Your task to perform on an android device: Open calendar and show me the second week of next month Image 0: 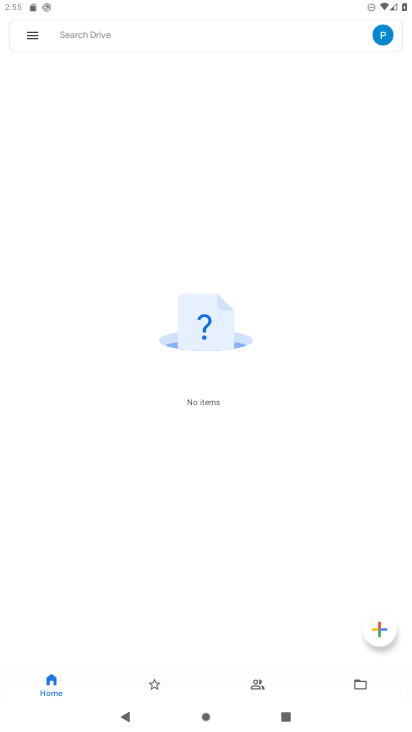
Step 0: press home button
Your task to perform on an android device: Open calendar and show me the second week of next month Image 1: 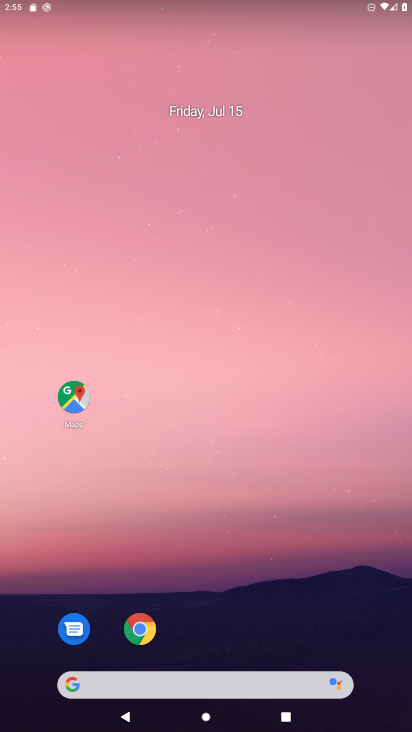
Step 1: drag from (256, 654) to (238, 24)
Your task to perform on an android device: Open calendar and show me the second week of next month Image 2: 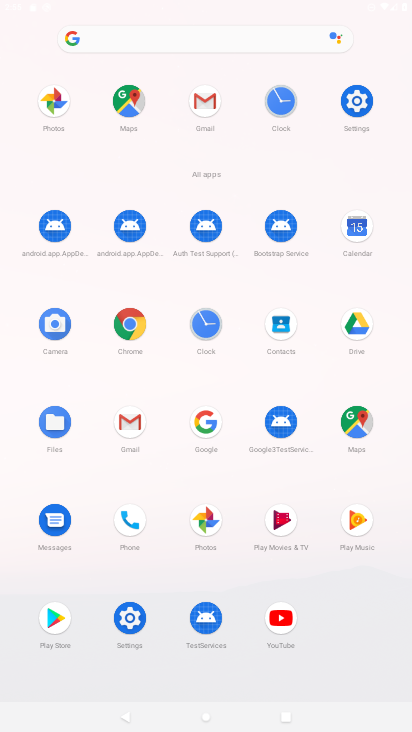
Step 2: click (360, 233)
Your task to perform on an android device: Open calendar and show me the second week of next month Image 3: 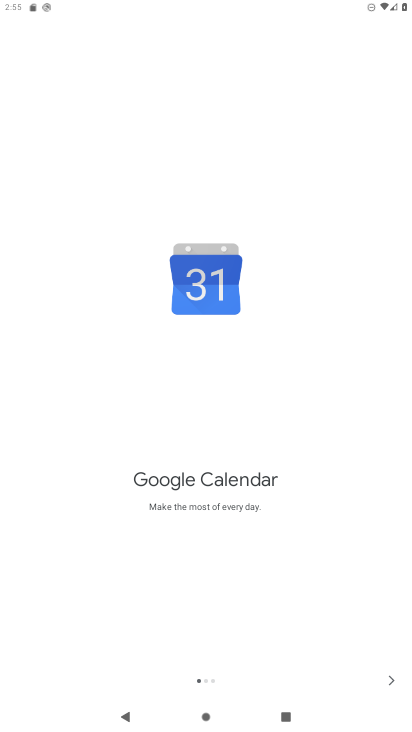
Step 3: click (398, 678)
Your task to perform on an android device: Open calendar and show me the second week of next month Image 4: 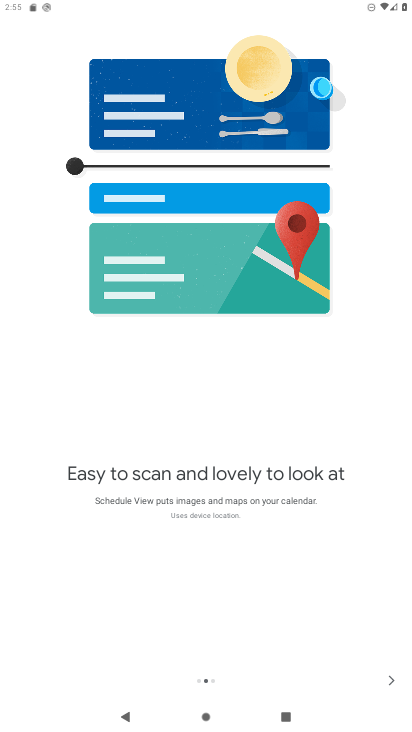
Step 4: click (391, 675)
Your task to perform on an android device: Open calendar and show me the second week of next month Image 5: 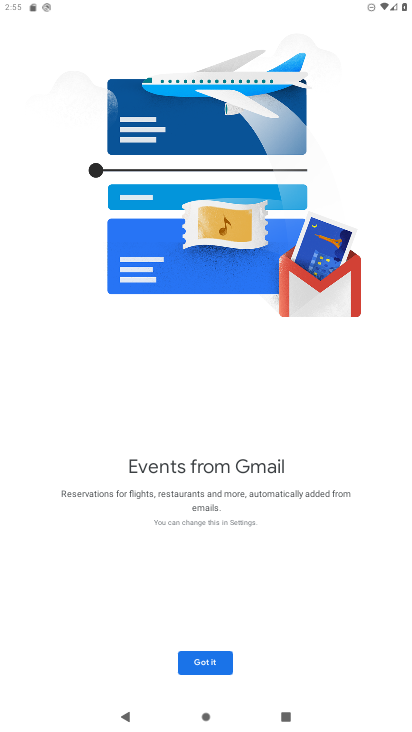
Step 5: click (205, 659)
Your task to perform on an android device: Open calendar and show me the second week of next month Image 6: 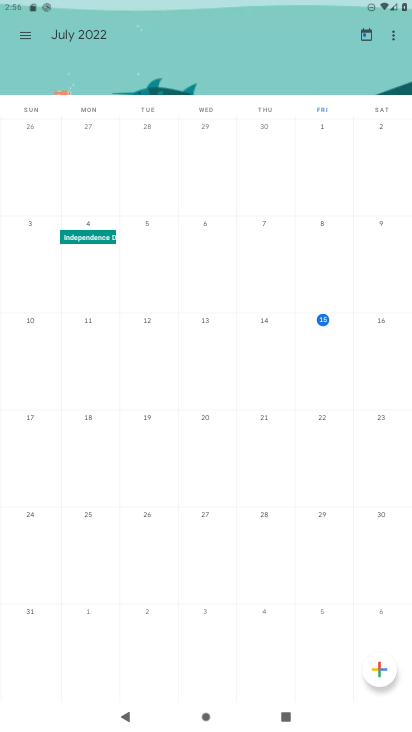
Step 6: drag from (348, 403) to (7, 407)
Your task to perform on an android device: Open calendar and show me the second week of next month Image 7: 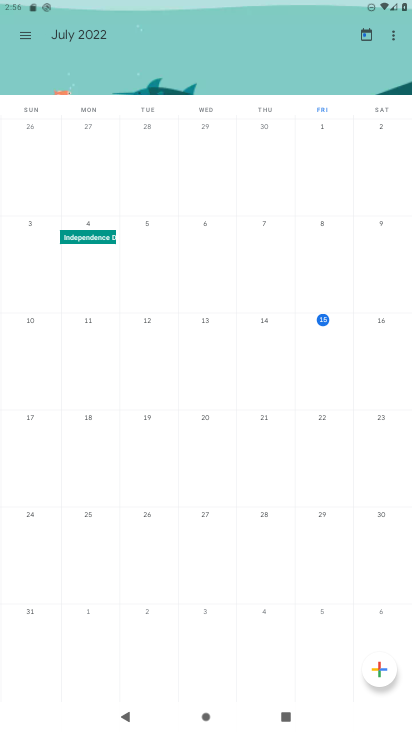
Step 7: drag from (342, 423) to (6, 449)
Your task to perform on an android device: Open calendar and show me the second week of next month Image 8: 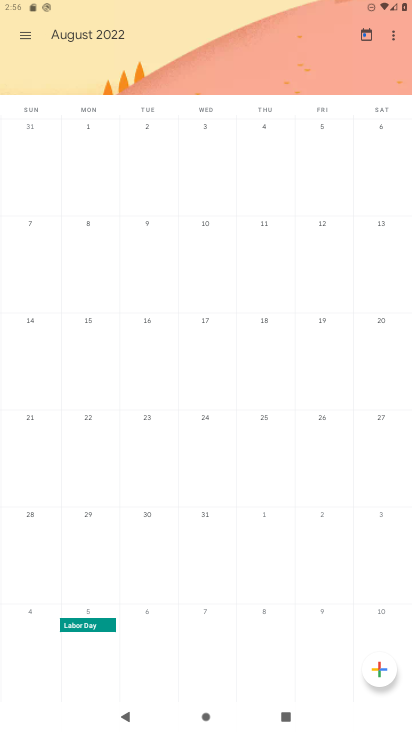
Step 8: click (32, 318)
Your task to perform on an android device: Open calendar and show me the second week of next month Image 9: 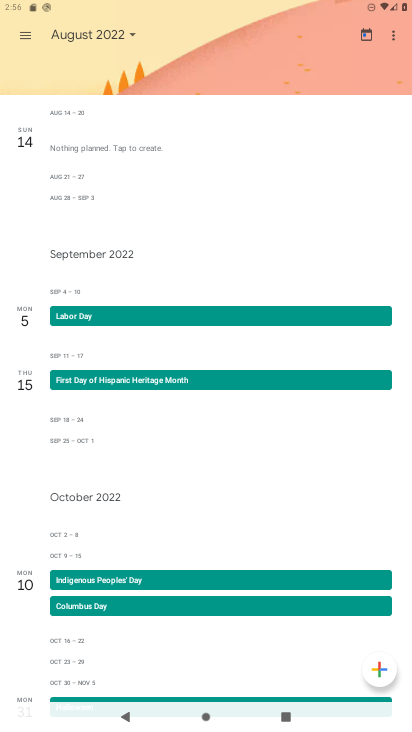
Step 9: task complete